Your task to perform on an android device: open wifi settings Image 0: 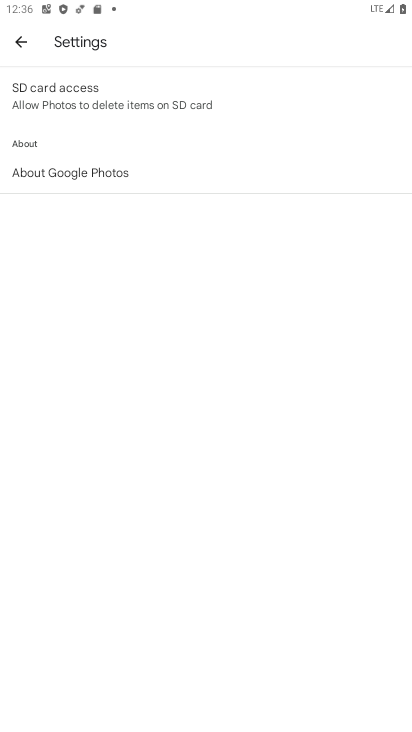
Step 0: press home button
Your task to perform on an android device: open wifi settings Image 1: 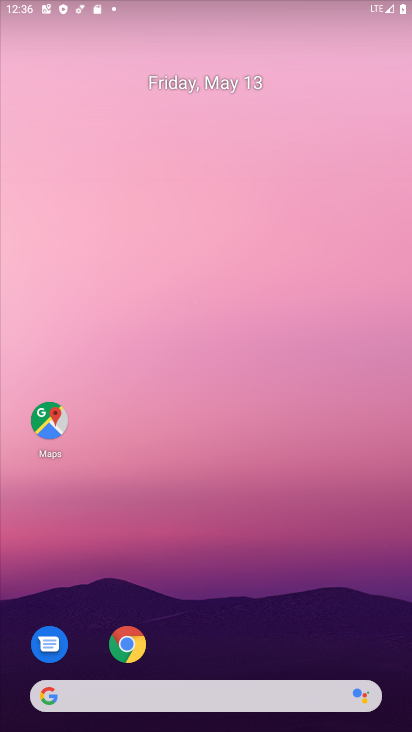
Step 1: drag from (365, 634) to (227, 84)
Your task to perform on an android device: open wifi settings Image 2: 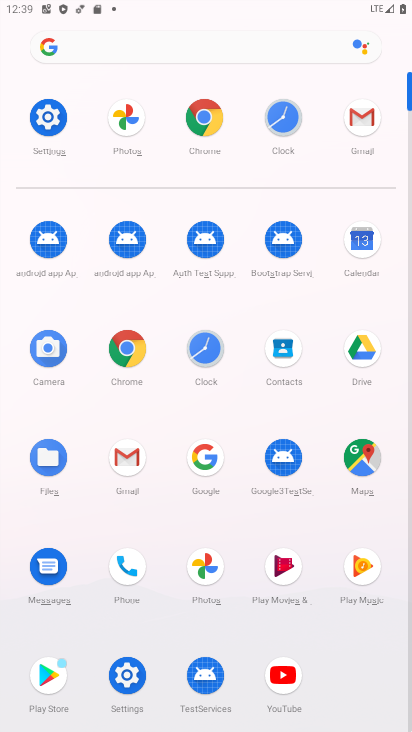
Step 2: click (122, 674)
Your task to perform on an android device: open wifi settings Image 3: 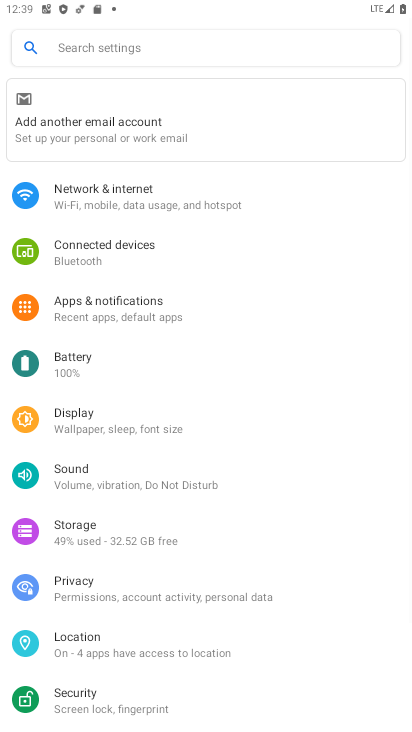
Step 3: click (116, 204)
Your task to perform on an android device: open wifi settings Image 4: 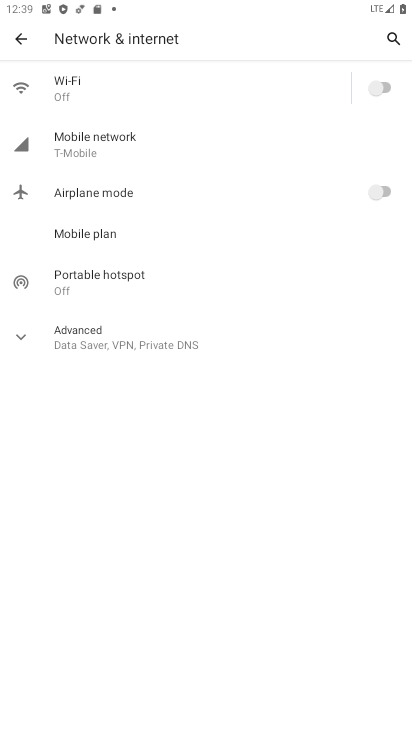
Step 4: click (146, 108)
Your task to perform on an android device: open wifi settings Image 5: 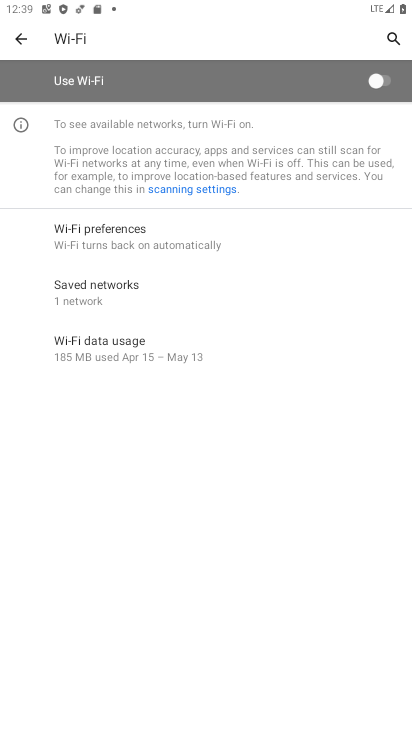
Step 5: task complete